Your task to perform on an android device: see tabs open on other devices in the chrome app Image 0: 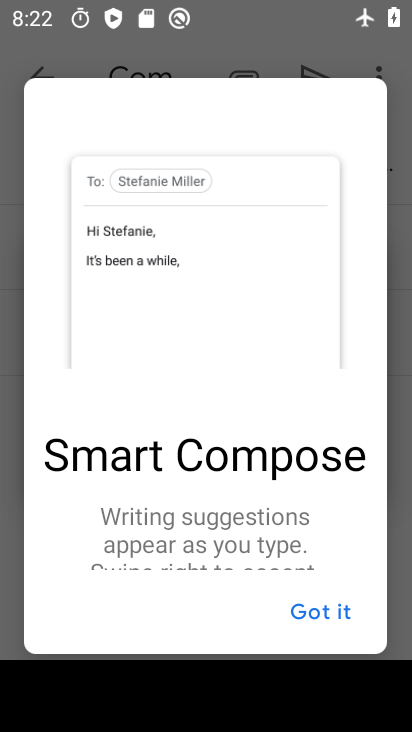
Step 0: press home button
Your task to perform on an android device: see tabs open on other devices in the chrome app Image 1: 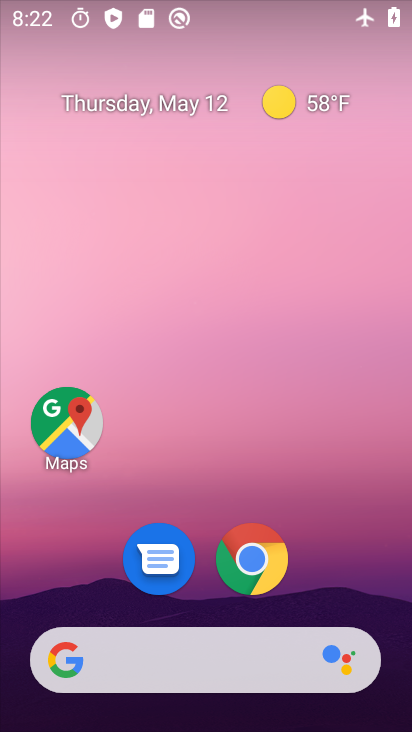
Step 1: click (254, 562)
Your task to perform on an android device: see tabs open on other devices in the chrome app Image 2: 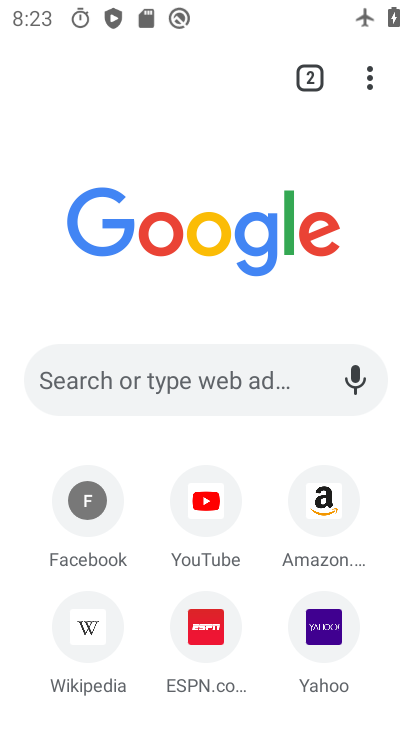
Step 2: click (371, 83)
Your task to perform on an android device: see tabs open on other devices in the chrome app Image 3: 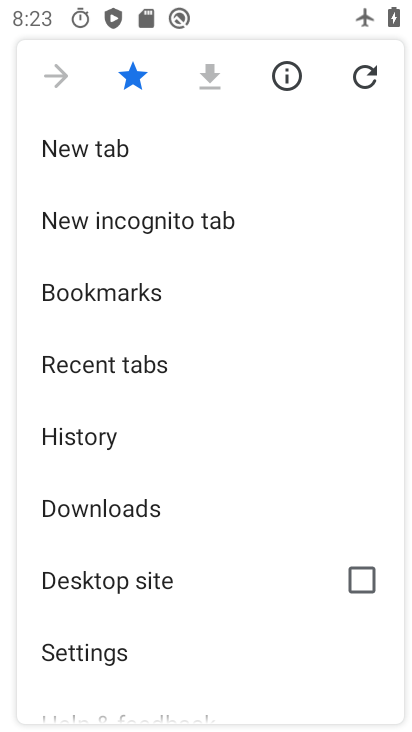
Step 3: click (128, 366)
Your task to perform on an android device: see tabs open on other devices in the chrome app Image 4: 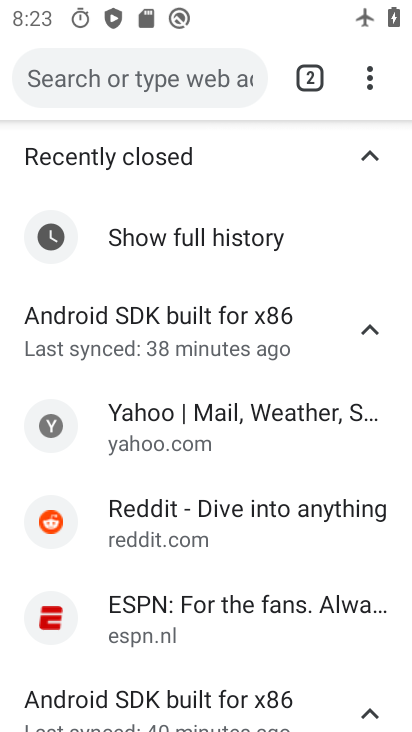
Step 4: task complete